Your task to perform on an android device: open device folders in google photos Image 0: 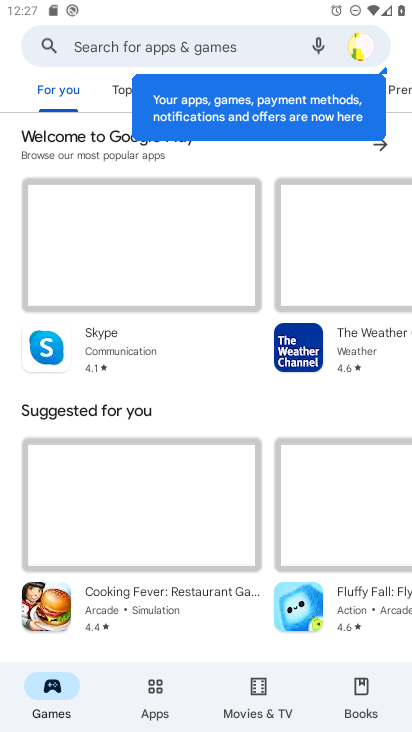
Step 0: press home button
Your task to perform on an android device: open device folders in google photos Image 1: 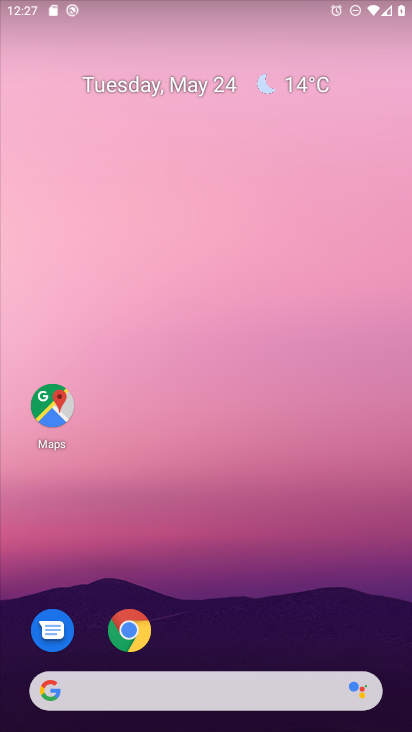
Step 1: drag from (359, 620) to (379, 169)
Your task to perform on an android device: open device folders in google photos Image 2: 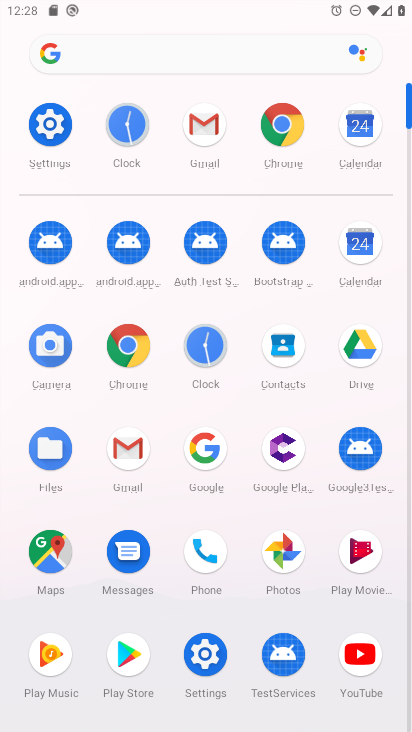
Step 2: click (271, 548)
Your task to perform on an android device: open device folders in google photos Image 3: 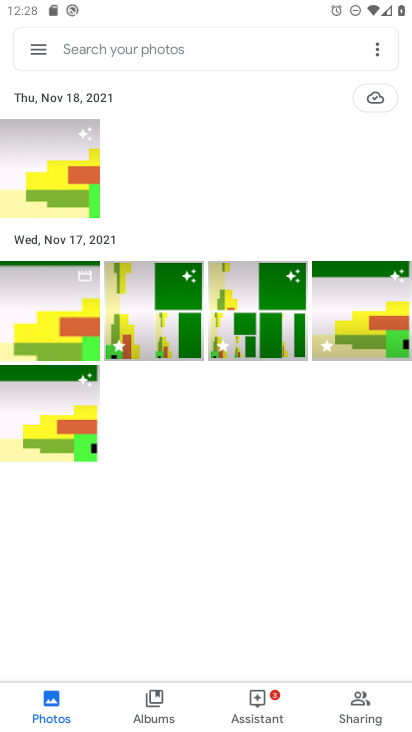
Step 3: click (36, 46)
Your task to perform on an android device: open device folders in google photos Image 4: 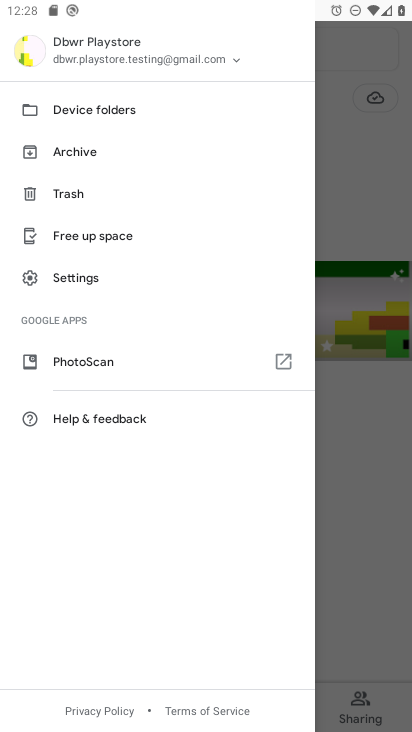
Step 4: click (69, 110)
Your task to perform on an android device: open device folders in google photos Image 5: 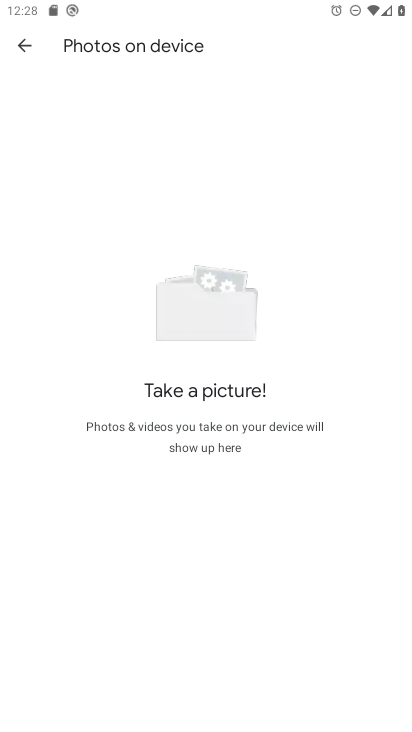
Step 5: task complete